Your task to perform on an android device: turn on location history Image 0: 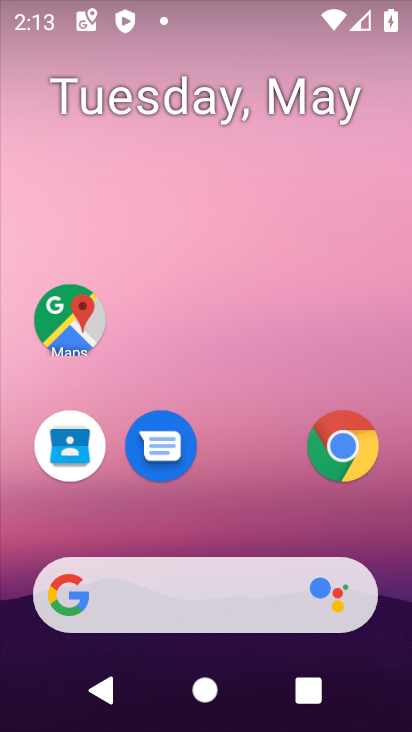
Step 0: drag from (219, 532) to (152, 25)
Your task to perform on an android device: turn on location history Image 1: 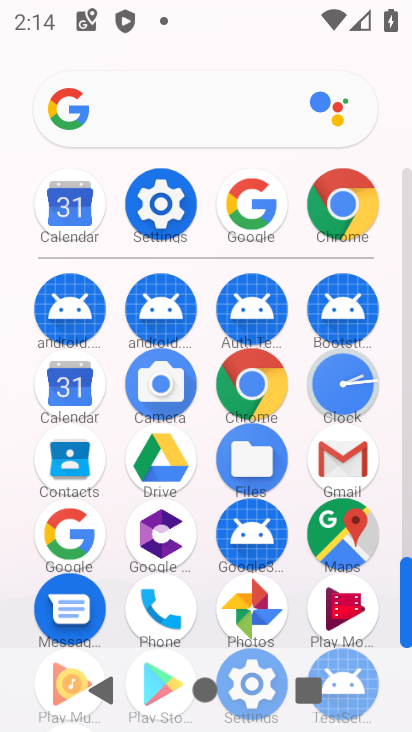
Step 1: click (238, 660)
Your task to perform on an android device: turn on location history Image 2: 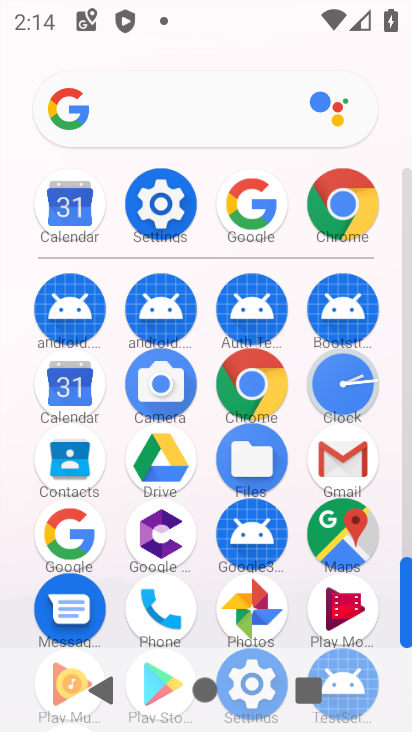
Step 2: drag from (203, 621) to (207, 427)
Your task to perform on an android device: turn on location history Image 3: 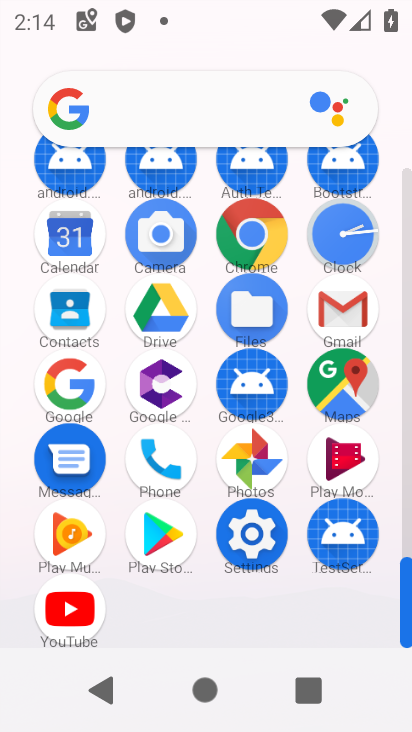
Step 3: click (257, 541)
Your task to perform on an android device: turn on location history Image 4: 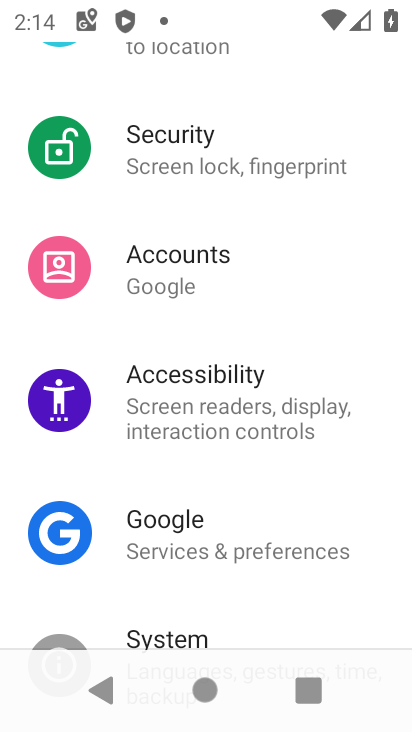
Step 4: drag from (202, 246) to (212, 729)
Your task to perform on an android device: turn on location history Image 5: 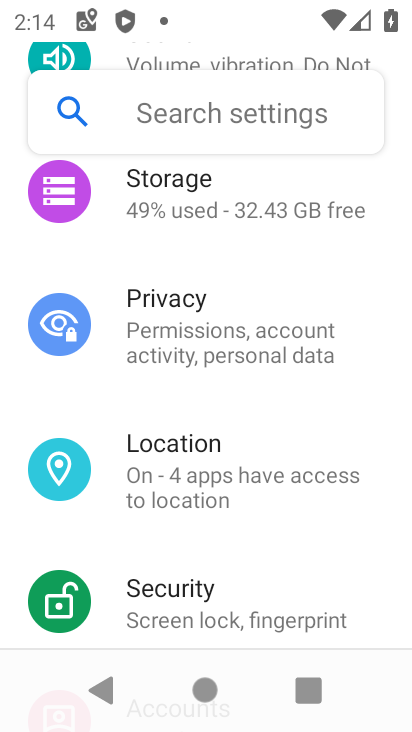
Step 5: drag from (226, 223) to (210, 616)
Your task to perform on an android device: turn on location history Image 6: 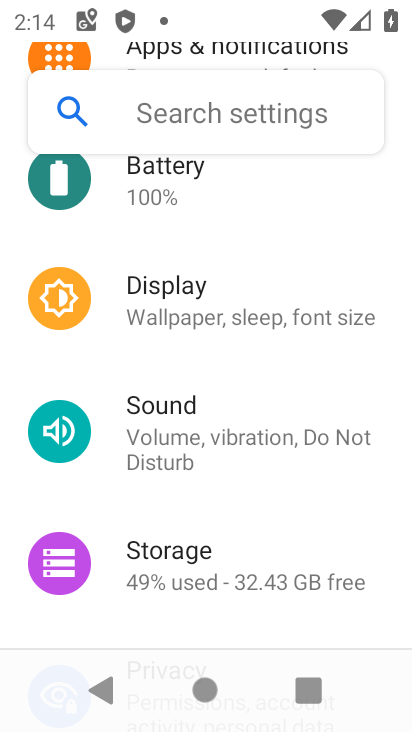
Step 6: drag from (205, 226) to (175, 636)
Your task to perform on an android device: turn on location history Image 7: 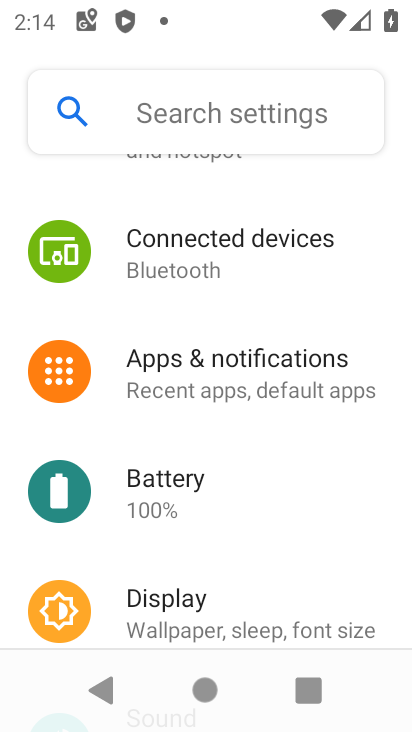
Step 7: drag from (230, 234) to (195, 89)
Your task to perform on an android device: turn on location history Image 8: 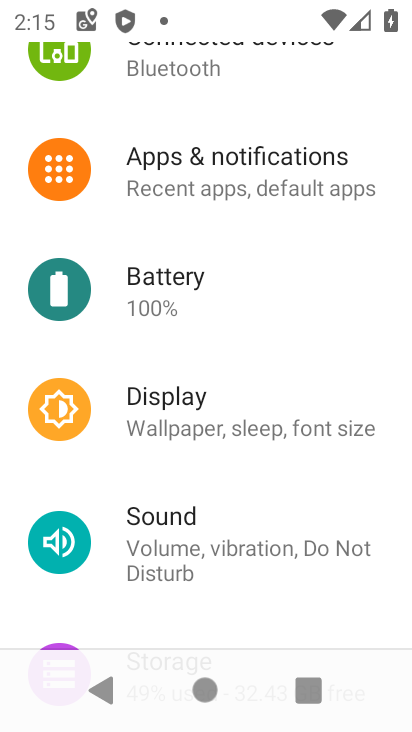
Step 8: drag from (218, 474) to (205, 222)
Your task to perform on an android device: turn on location history Image 9: 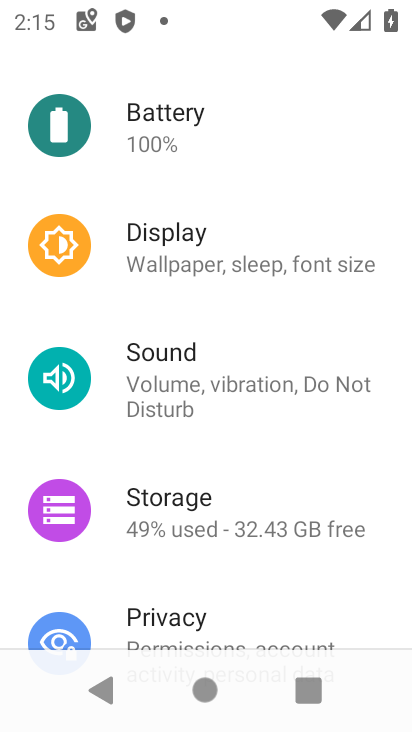
Step 9: drag from (193, 498) to (182, 245)
Your task to perform on an android device: turn on location history Image 10: 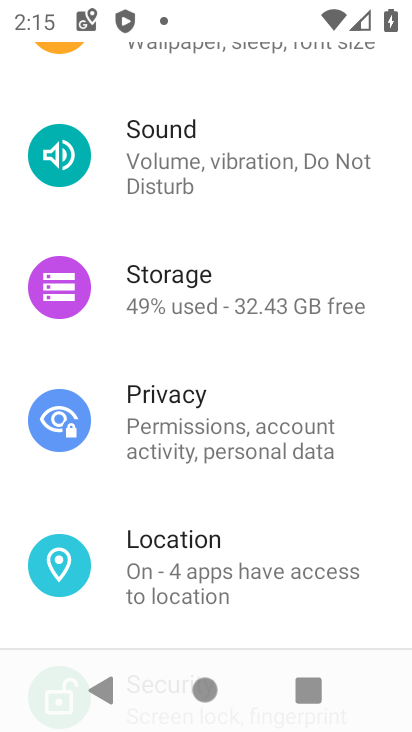
Step 10: click (224, 543)
Your task to perform on an android device: turn on location history Image 11: 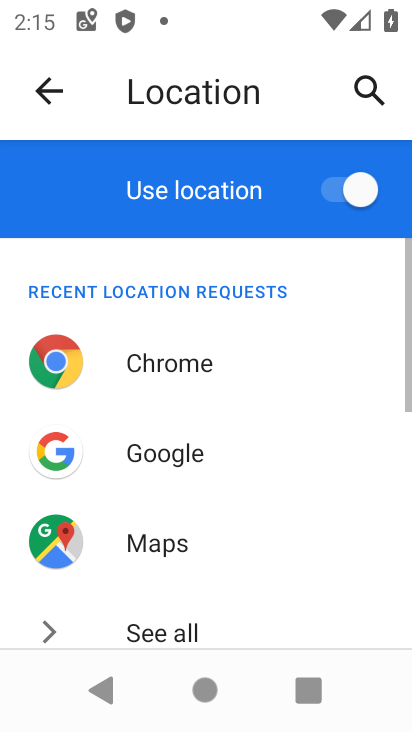
Step 11: drag from (224, 601) to (200, 141)
Your task to perform on an android device: turn on location history Image 12: 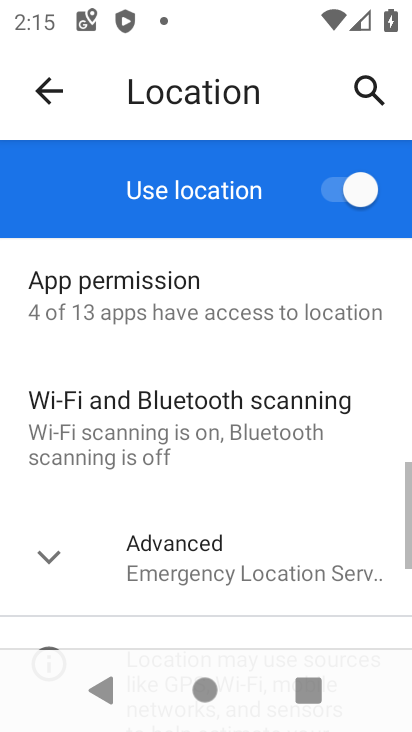
Step 12: click (210, 536)
Your task to perform on an android device: turn on location history Image 13: 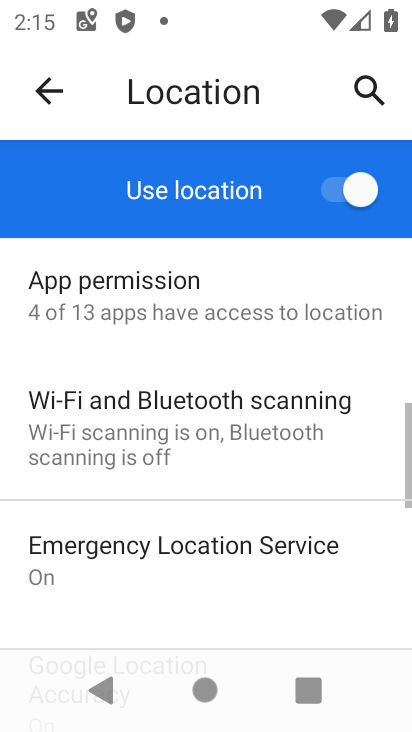
Step 13: drag from (215, 536) to (211, 226)
Your task to perform on an android device: turn on location history Image 14: 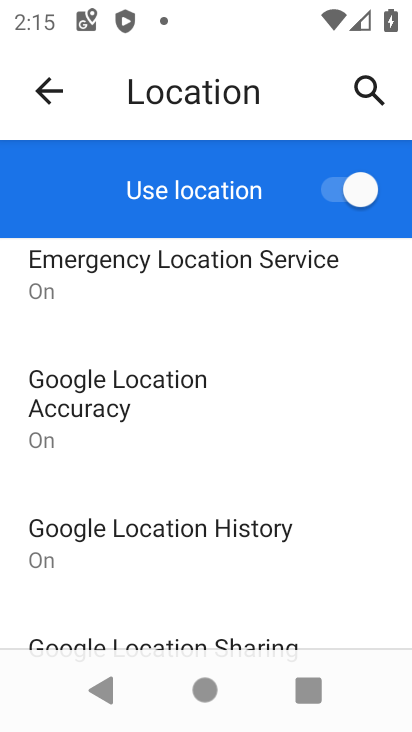
Step 14: click (226, 528)
Your task to perform on an android device: turn on location history Image 15: 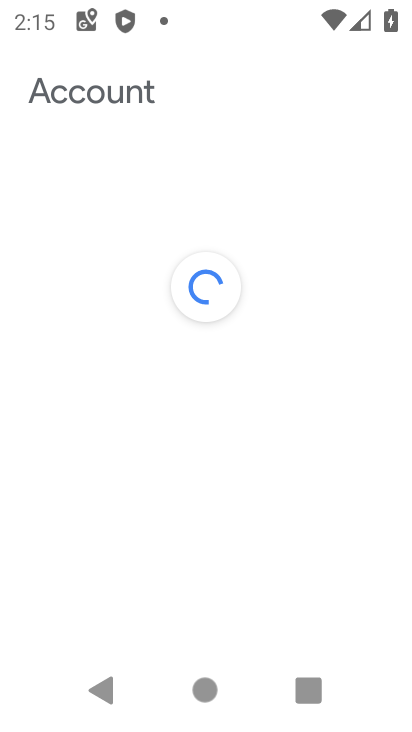
Step 15: task complete